Your task to perform on an android device: turn on the 12-hour format for clock Image 0: 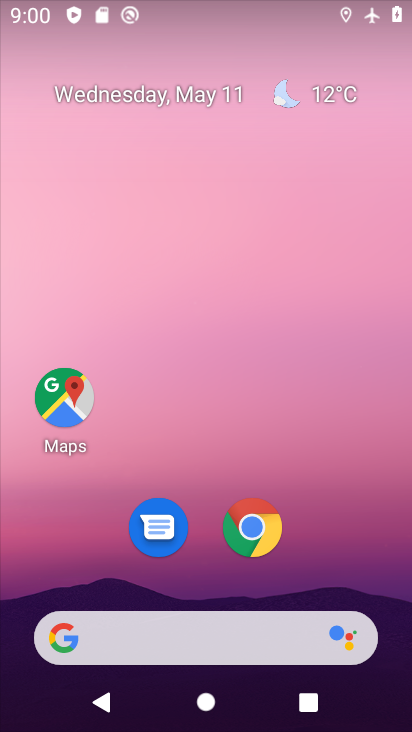
Step 0: drag from (379, 356) to (387, 127)
Your task to perform on an android device: turn on the 12-hour format for clock Image 1: 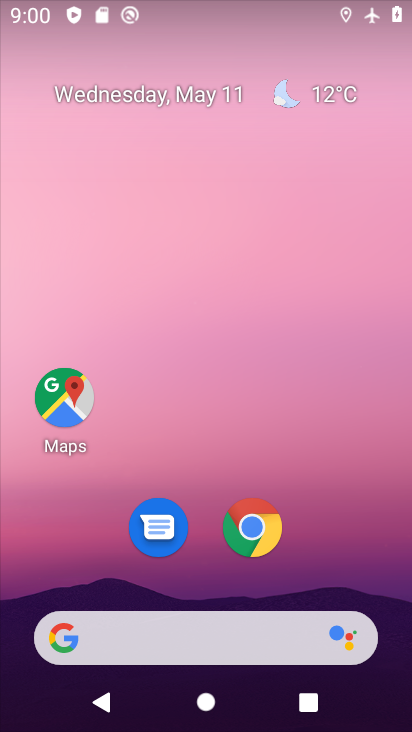
Step 1: drag from (337, 319) to (338, 89)
Your task to perform on an android device: turn on the 12-hour format for clock Image 2: 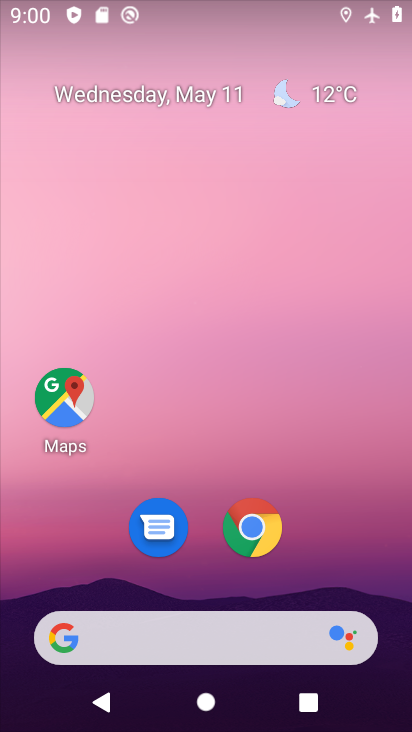
Step 2: drag from (396, 513) to (345, 88)
Your task to perform on an android device: turn on the 12-hour format for clock Image 3: 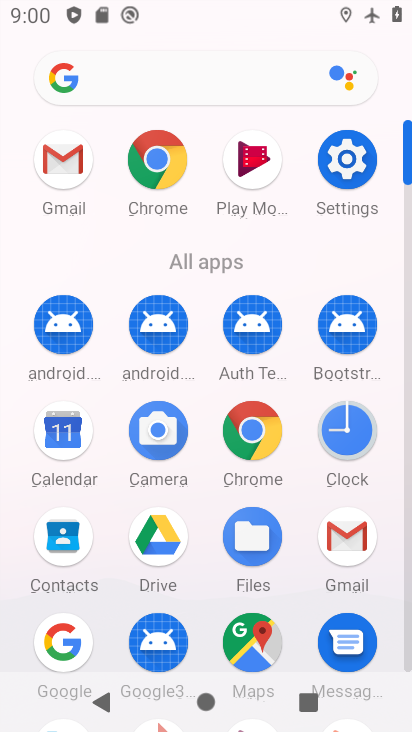
Step 3: click (362, 445)
Your task to perform on an android device: turn on the 12-hour format for clock Image 4: 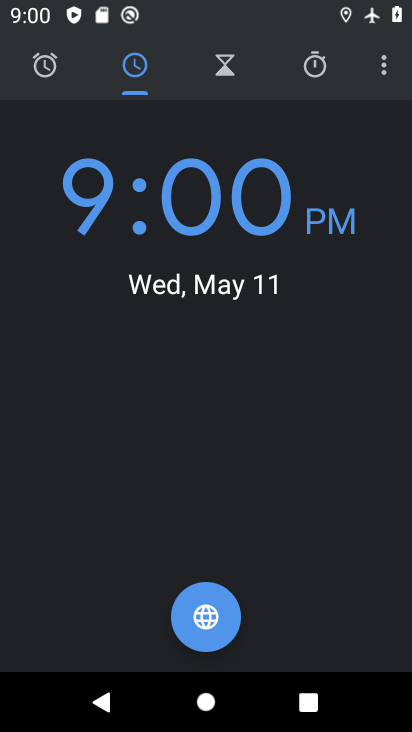
Step 4: click (384, 62)
Your task to perform on an android device: turn on the 12-hour format for clock Image 5: 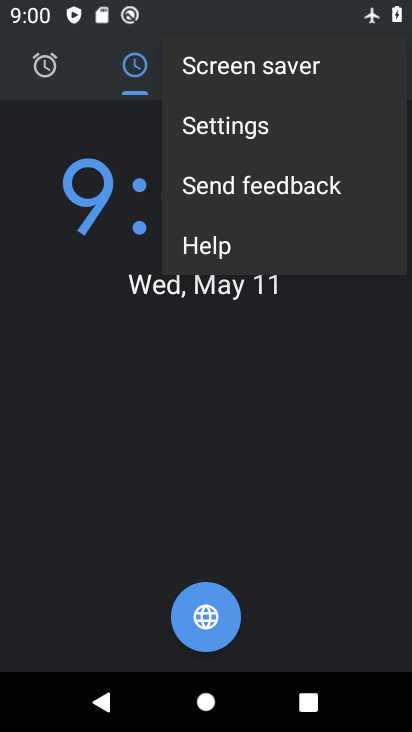
Step 5: click (268, 137)
Your task to perform on an android device: turn on the 12-hour format for clock Image 6: 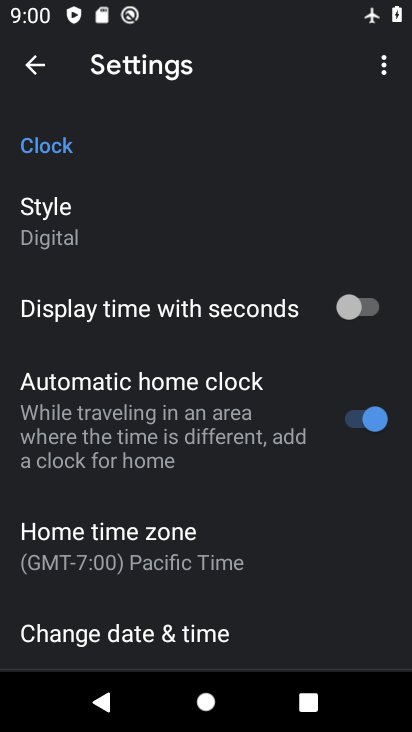
Step 6: drag from (249, 623) to (255, 470)
Your task to perform on an android device: turn on the 12-hour format for clock Image 7: 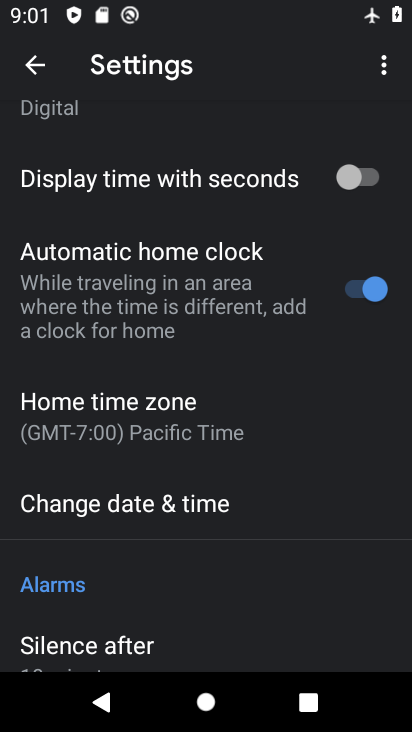
Step 7: click (199, 500)
Your task to perform on an android device: turn on the 12-hour format for clock Image 8: 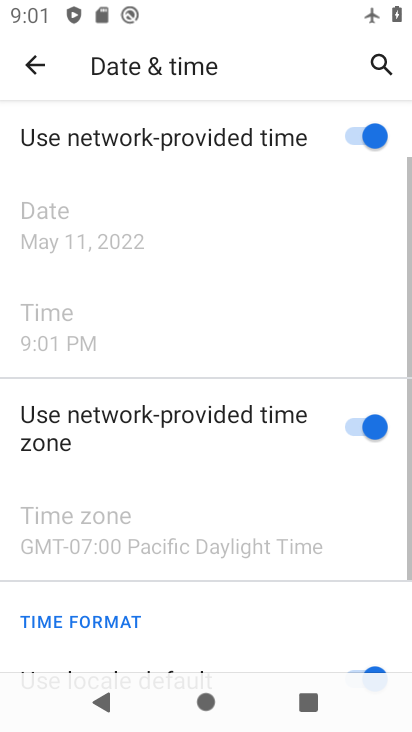
Step 8: drag from (290, 604) to (323, 245)
Your task to perform on an android device: turn on the 12-hour format for clock Image 9: 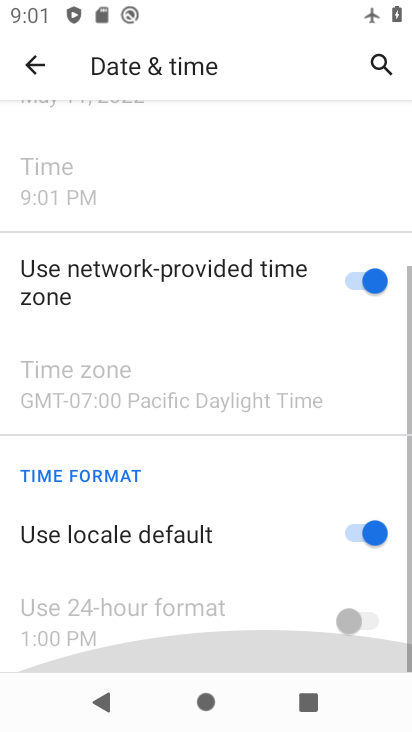
Step 9: click (324, 244)
Your task to perform on an android device: turn on the 12-hour format for clock Image 10: 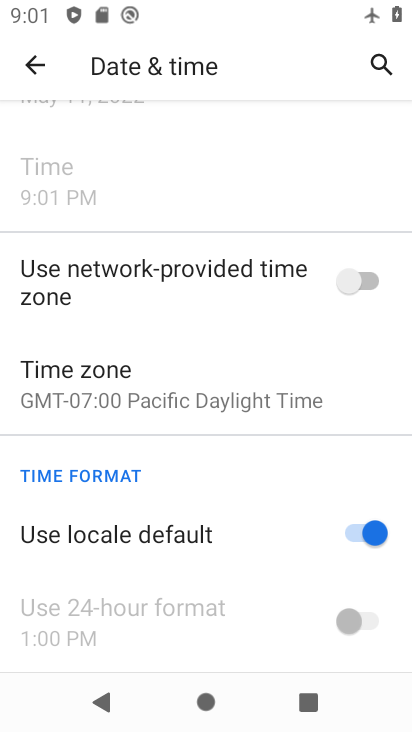
Step 10: task complete